Your task to perform on an android device: toggle javascript in the chrome app Image 0: 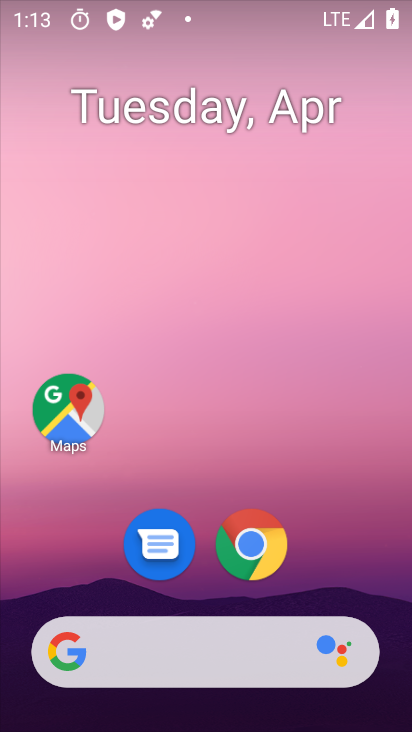
Step 0: click (258, 558)
Your task to perform on an android device: toggle javascript in the chrome app Image 1: 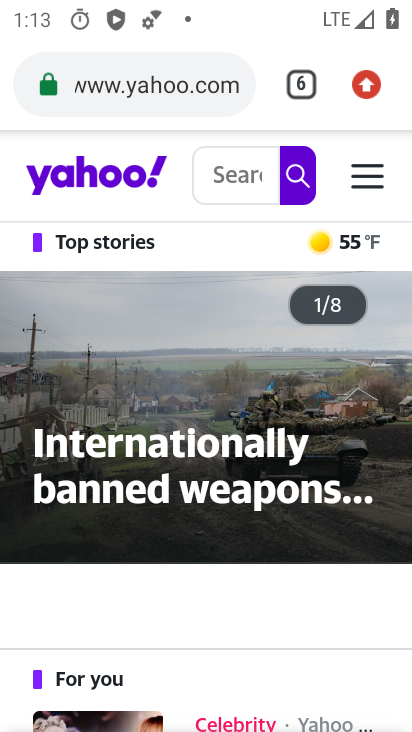
Step 1: click (367, 93)
Your task to perform on an android device: toggle javascript in the chrome app Image 2: 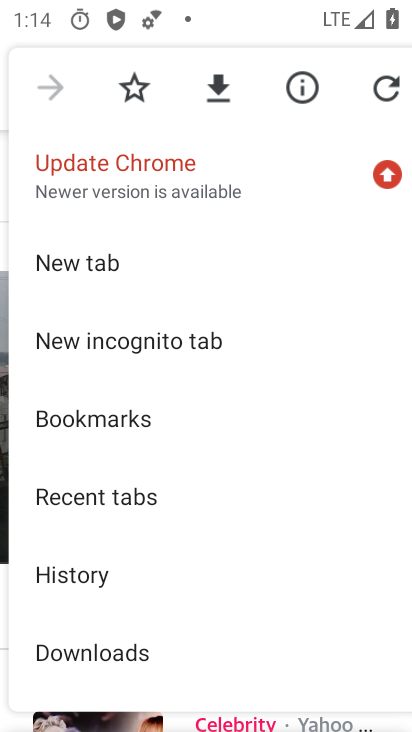
Step 2: drag from (230, 600) to (223, 276)
Your task to perform on an android device: toggle javascript in the chrome app Image 3: 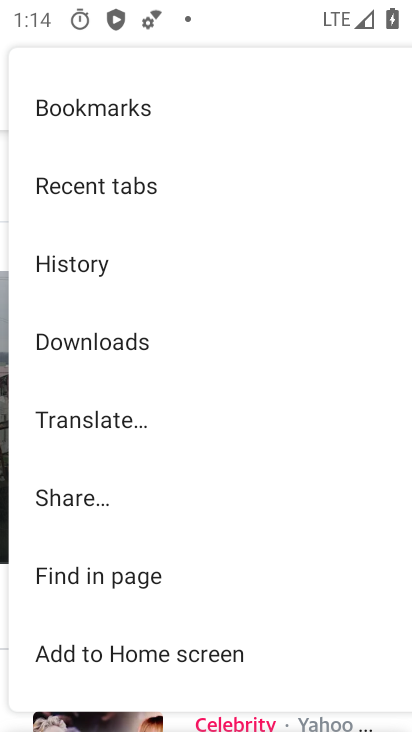
Step 3: drag from (192, 576) to (194, 293)
Your task to perform on an android device: toggle javascript in the chrome app Image 4: 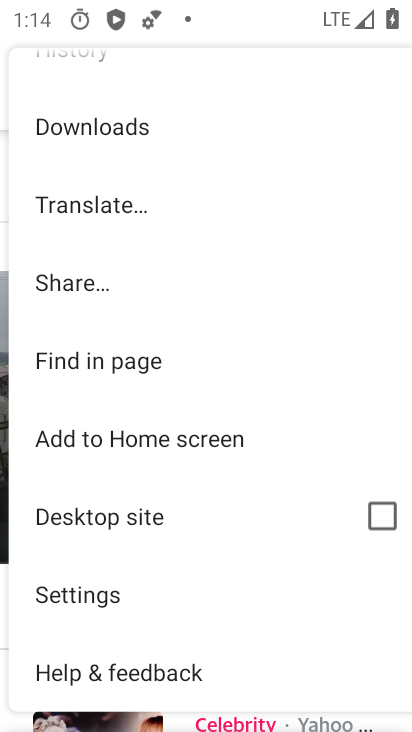
Step 4: click (74, 607)
Your task to perform on an android device: toggle javascript in the chrome app Image 5: 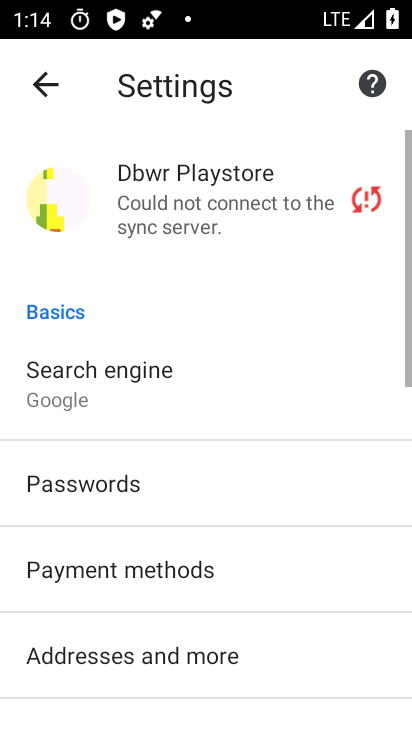
Step 5: drag from (225, 638) to (225, 256)
Your task to perform on an android device: toggle javascript in the chrome app Image 6: 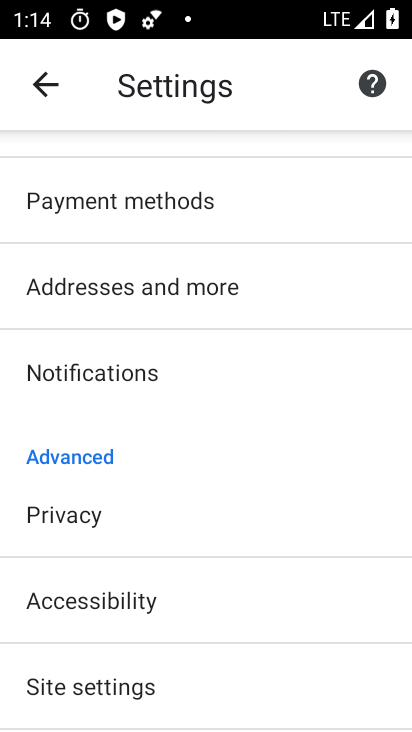
Step 6: drag from (215, 569) to (200, 295)
Your task to perform on an android device: toggle javascript in the chrome app Image 7: 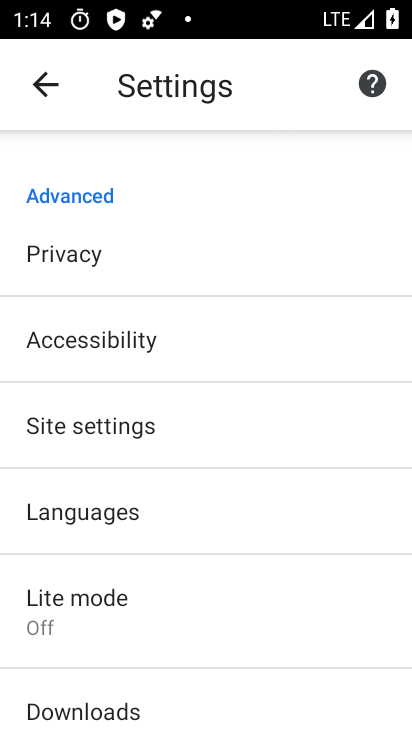
Step 7: click (107, 428)
Your task to perform on an android device: toggle javascript in the chrome app Image 8: 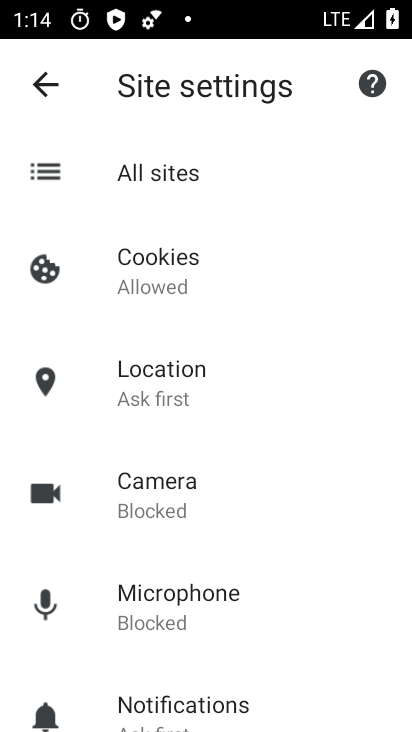
Step 8: drag from (243, 568) to (242, 306)
Your task to perform on an android device: toggle javascript in the chrome app Image 9: 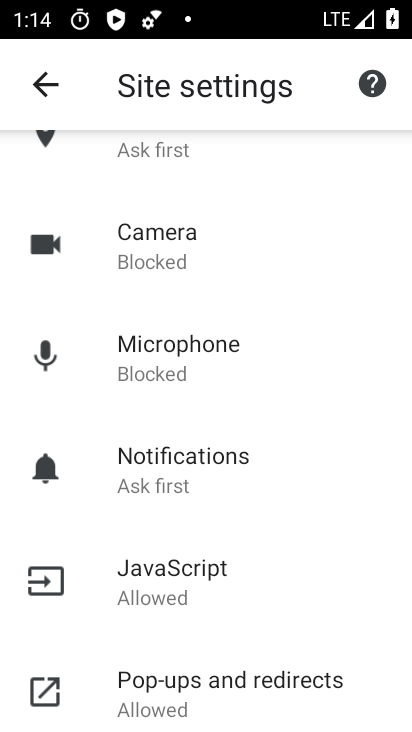
Step 9: click (159, 574)
Your task to perform on an android device: toggle javascript in the chrome app Image 10: 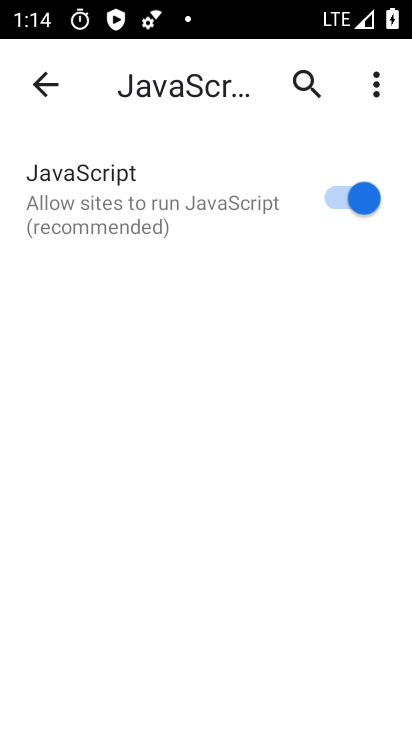
Step 10: click (340, 200)
Your task to perform on an android device: toggle javascript in the chrome app Image 11: 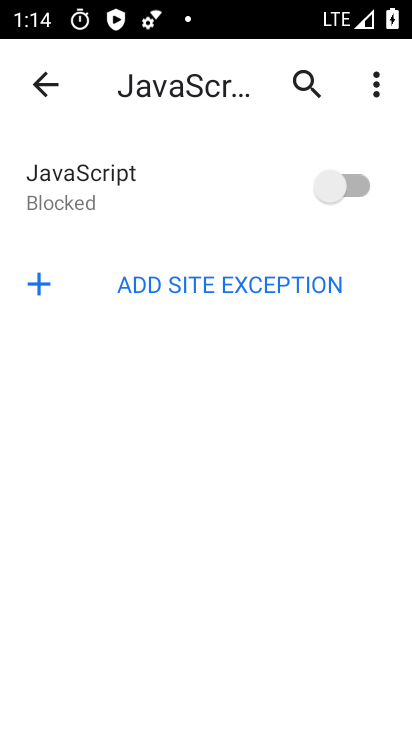
Step 11: task complete